Your task to perform on an android device: change notifications settings Image 0: 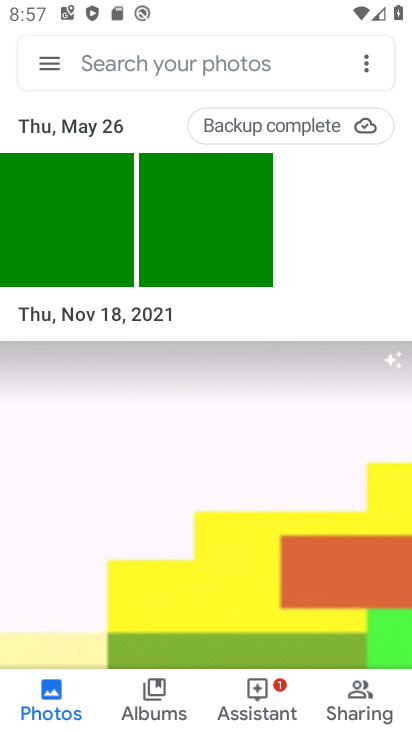
Step 0: press home button
Your task to perform on an android device: change notifications settings Image 1: 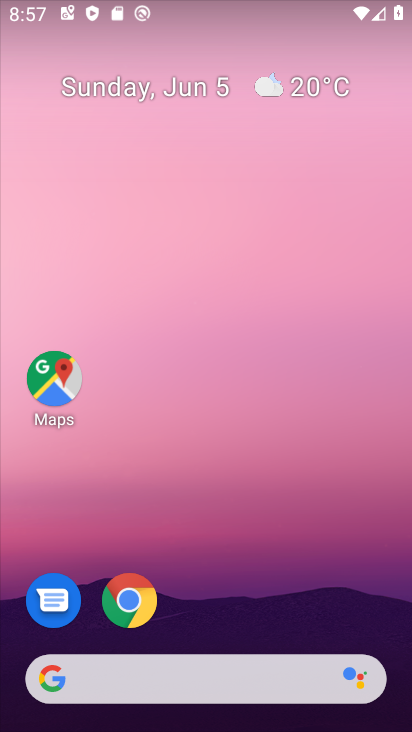
Step 1: drag from (245, 580) to (202, 3)
Your task to perform on an android device: change notifications settings Image 2: 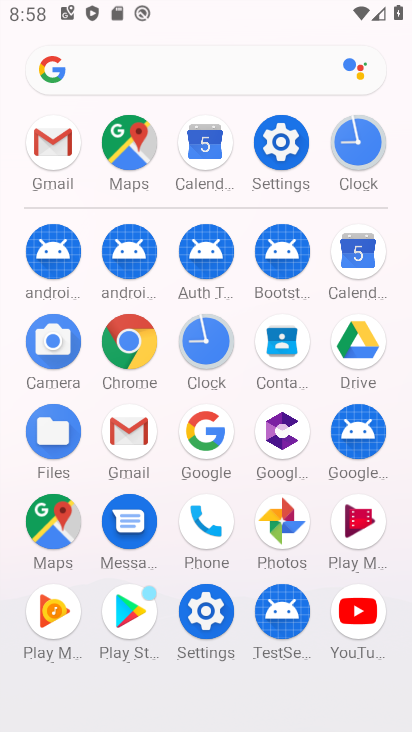
Step 2: click (282, 140)
Your task to perform on an android device: change notifications settings Image 3: 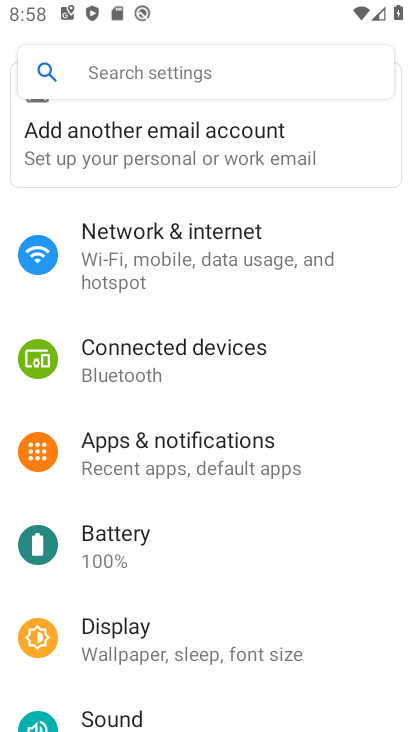
Step 3: click (230, 460)
Your task to perform on an android device: change notifications settings Image 4: 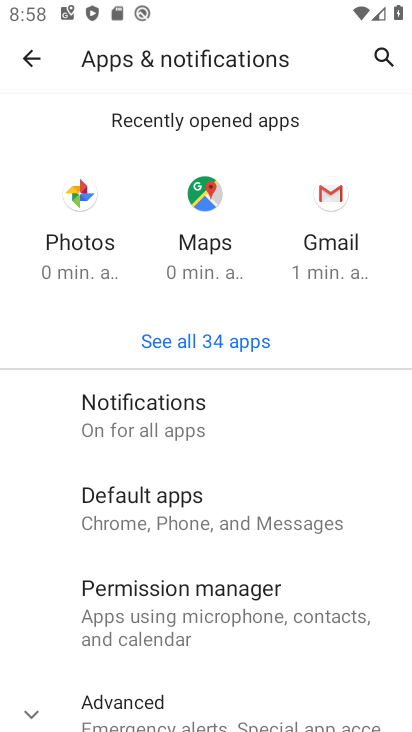
Step 4: click (196, 414)
Your task to perform on an android device: change notifications settings Image 5: 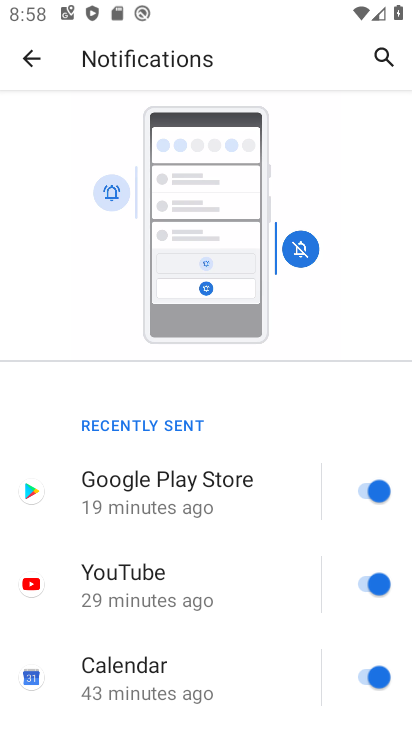
Step 5: drag from (227, 583) to (242, 128)
Your task to perform on an android device: change notifications settings Image 6: 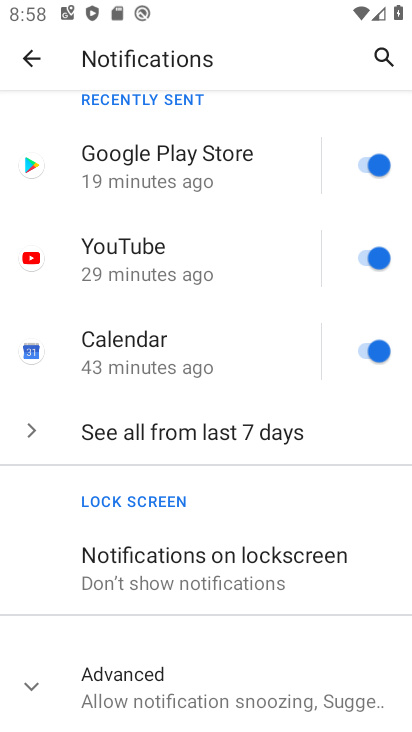
Step 6: click (273, 435)
Your task to perform on an android device: change notifications settings Image 7: 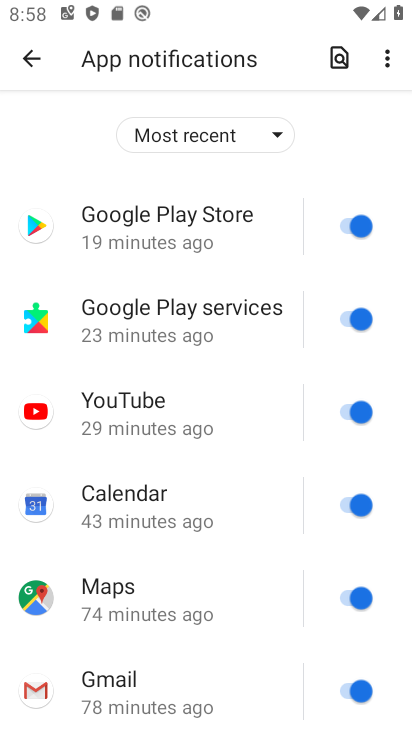
Step 7: click (358, 227)
Your task to perform on an android device: change notifications settings Image 8: 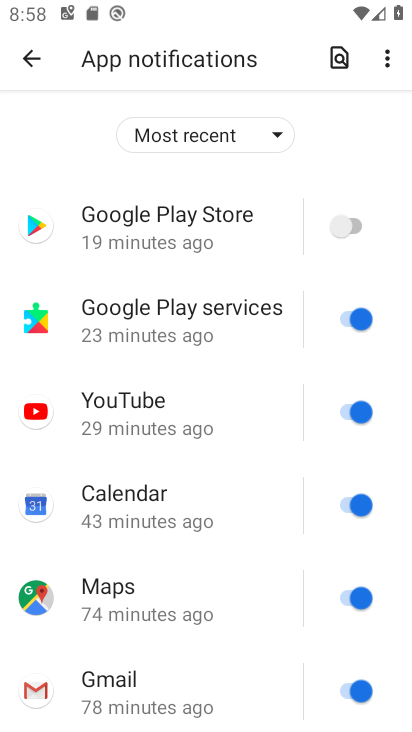
Step 8: click (360, 313)
Your task to perform on an android device: change notifications settings Image 9: 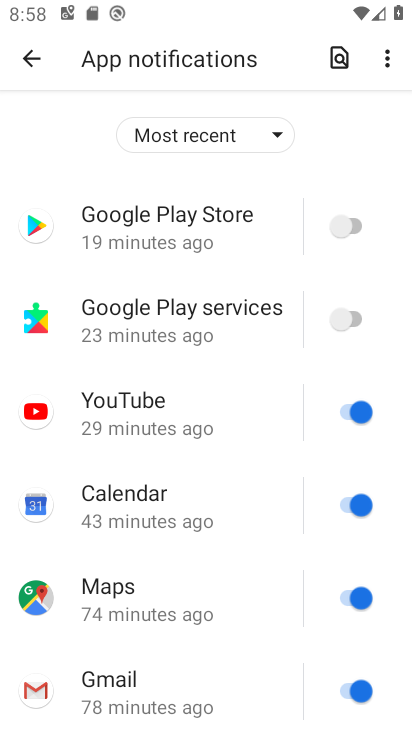
Step 9: click (355, 407)
Your task to perform on an android device: change notifications settings Image 10: 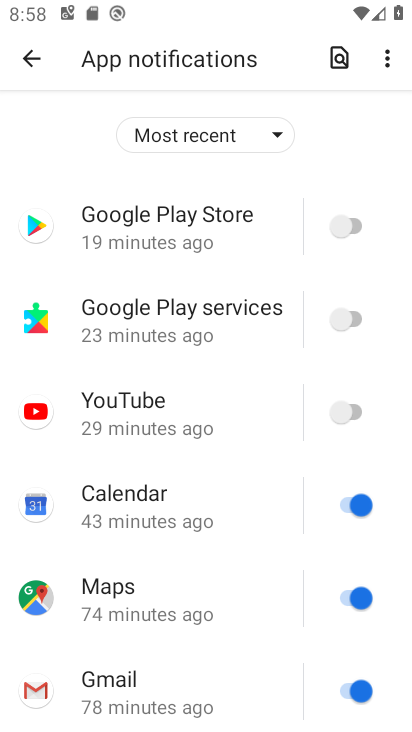
Step 10: click (360, 497)
Your task to perform on an android device: change notifications settings Image 11: 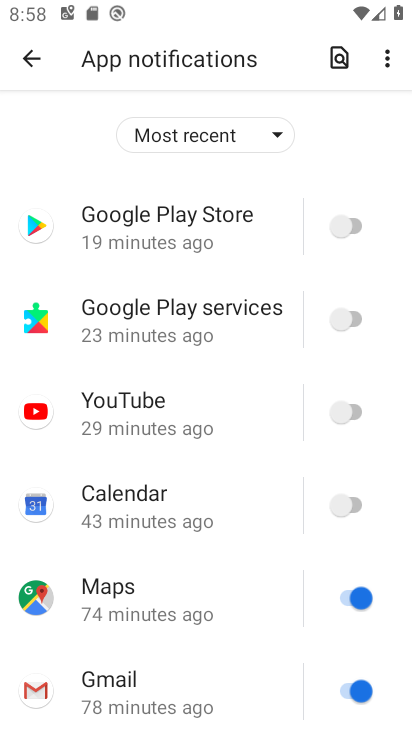
Step 11: click (357, 589)
Your task to perform on an android device: change notifications settings Image 12: 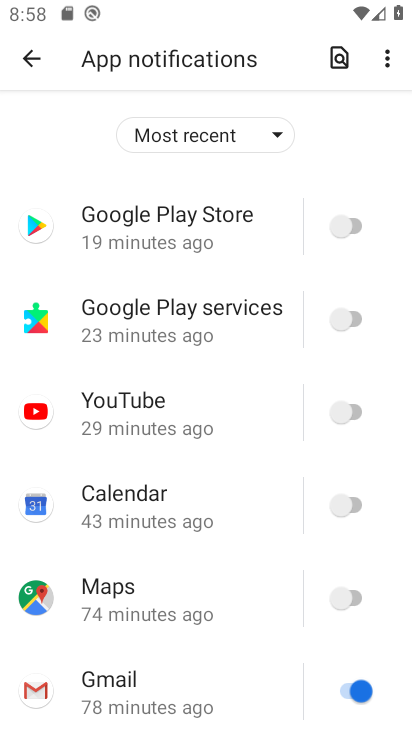
Step 12: click (348, 685)
Your task to perform on an android device: change notifications settings Image 13: 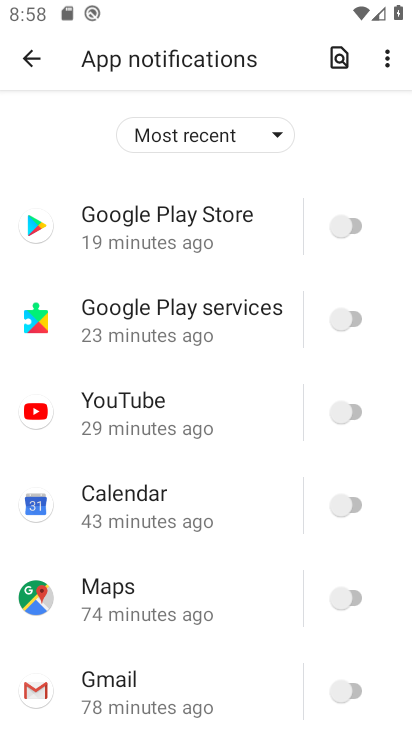
Step 13: drag from (252, 642) to (228, 185)
Your task to perform on an android device: change notifications settings Image 14: 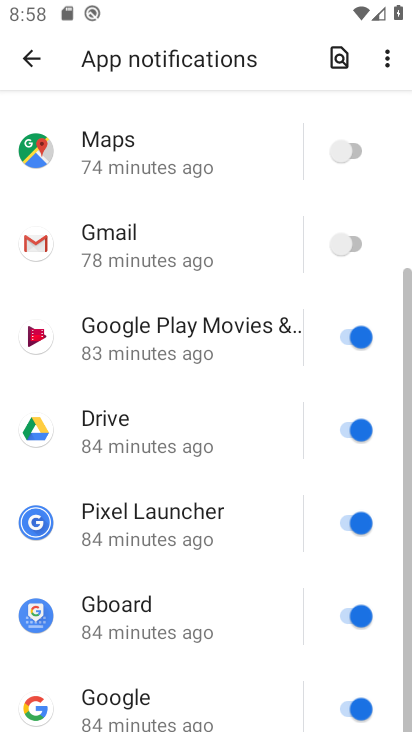
Step 14: drag from (229, 403) to (213, 134)
Your task to perform on an android device: change notifications settings Image 15: 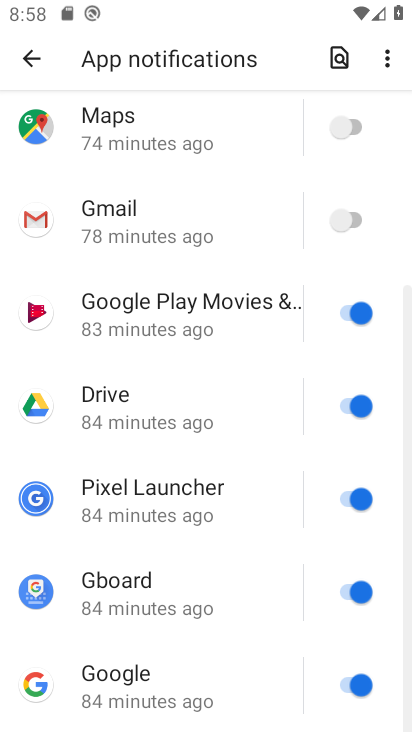
Step 15: click (350, 308)
Your task to perform on an android device: change notifications settings Image 16: 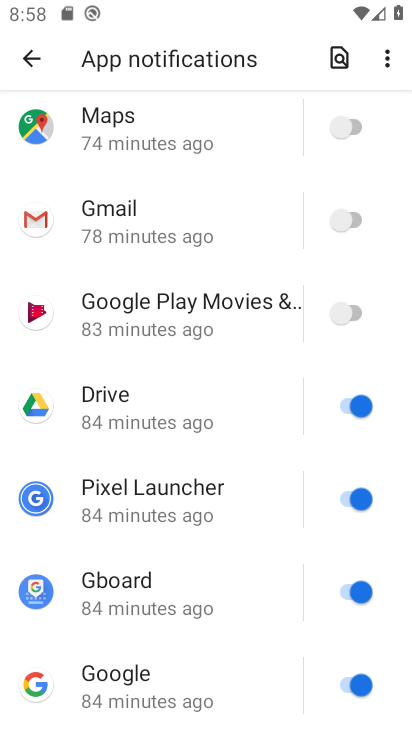
Step 16: click (344, 406)
Your task to perform on an android device: change notifications settings Image 17: 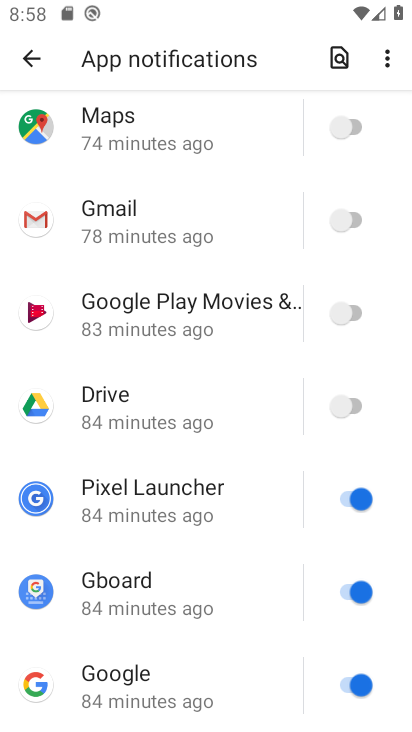
Step 17: click (358, 486)
Your task to perform on an android device: change notifications settings Image 18: 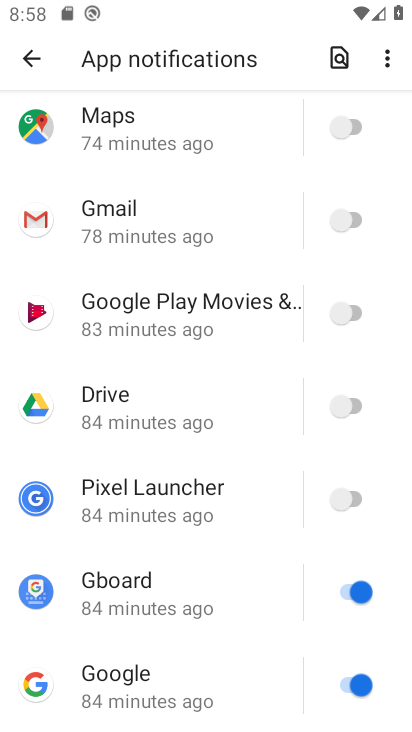
Step 18: click (355, 586)
Your task to perform on an android device: change notifications settings Image 19: 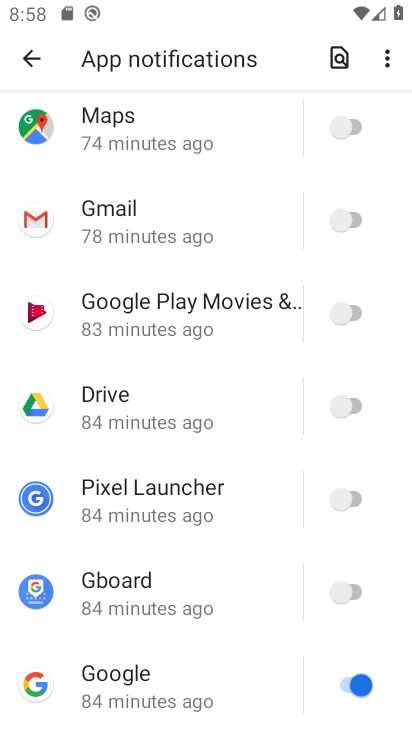
Step 19: click (365, 677)
Your task to perform on an android device: change notifications settings Image 20: 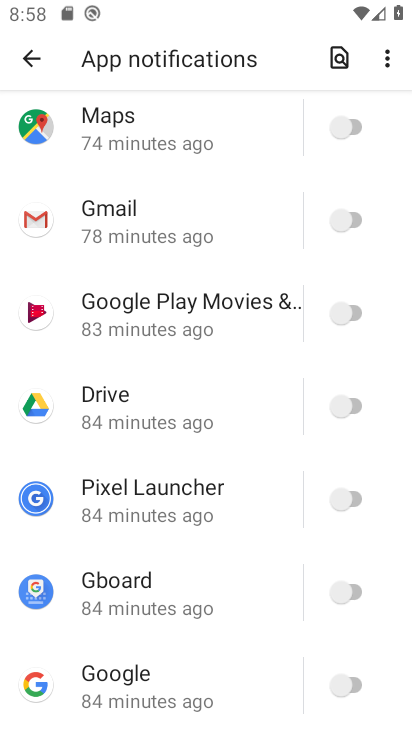
Step 20: task complete